Your task to perform on an android device: search for starred emails in the gmail app Image 0: 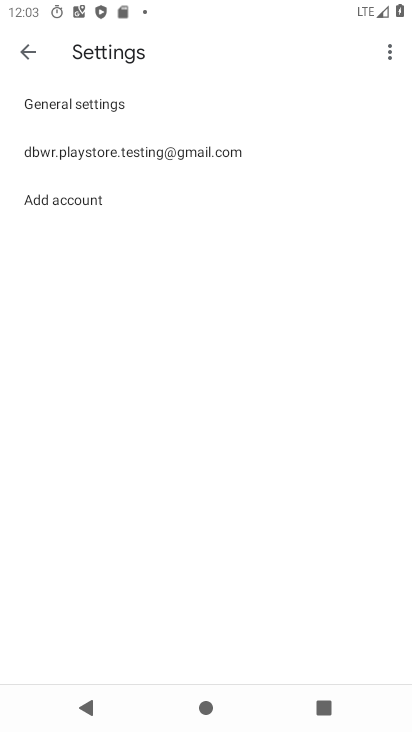
Step 0: press home button
Your task to perform on an android device: search for starred emails in the gmail app Image 1: 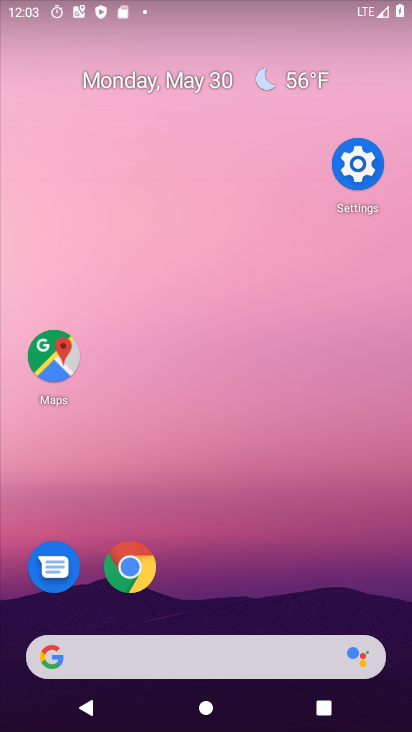
Step 1: drag from (306, 590) to (299, 124)
Your task to perform on an android device: search for starred emails in the gmail app Image 2: 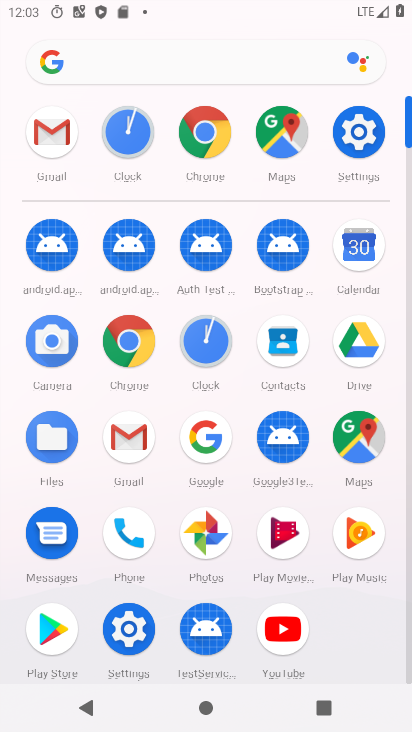
Step 2: click (127, 455)
Your task to perform on an android device: search for starred emails in the gmail app Image 3: 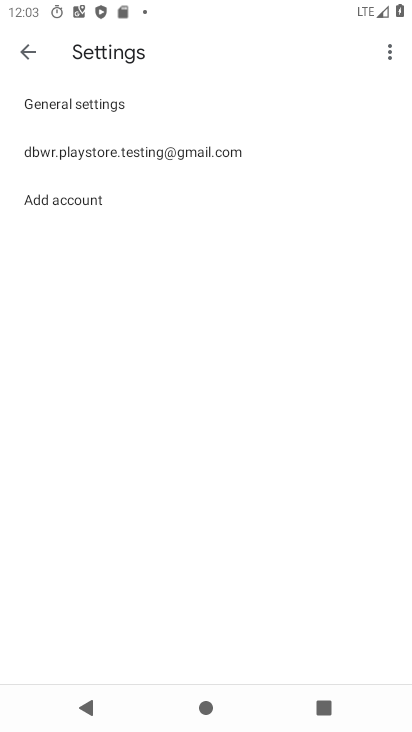
Step 3: click (183, 153)
Your task to perform on an android device: search for starred emails in the gmail app Image 4: 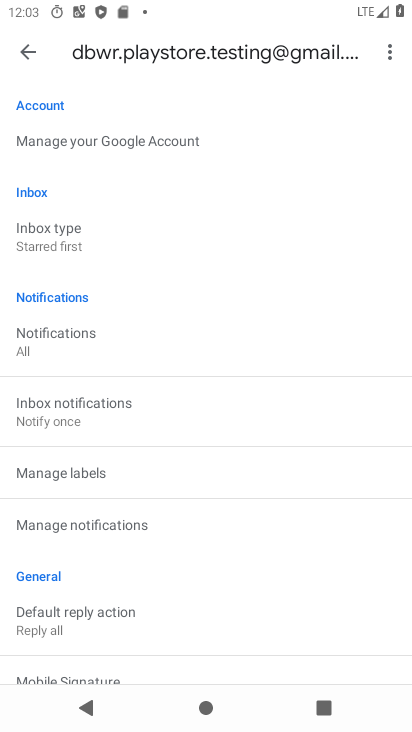
Step 4: click (6, 56)
Your task to perform on an android device: search for starred emails in the gmail app Image 5: 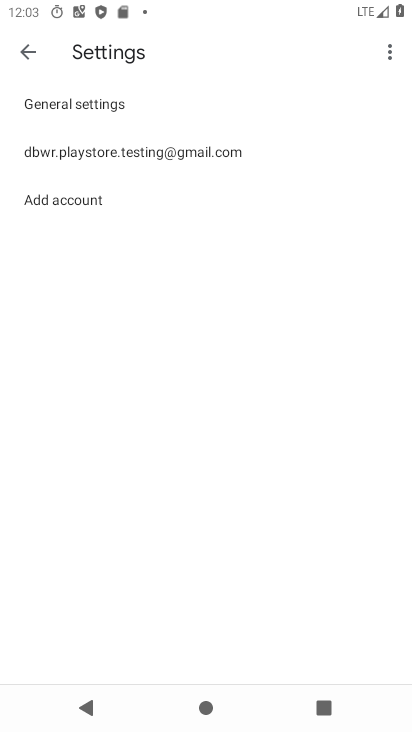
Step 5: click (6, 56)
Your task to perform on an android device: search for starred emails in the gmail app Image 6: 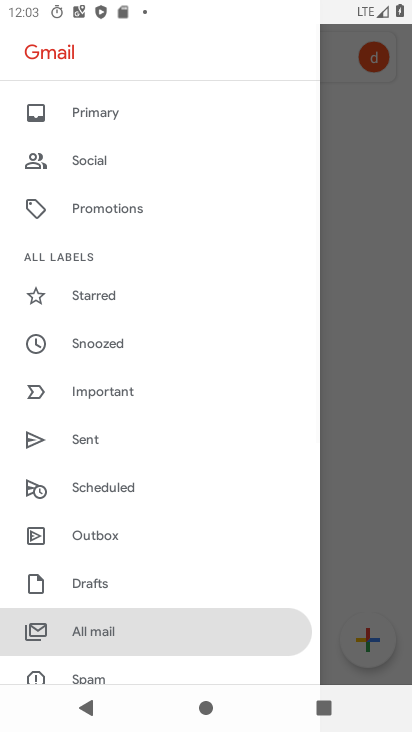
Step 6: click (131, 296)
Your task to perform on an android device: search for starred emails in the gmail app Image 7: 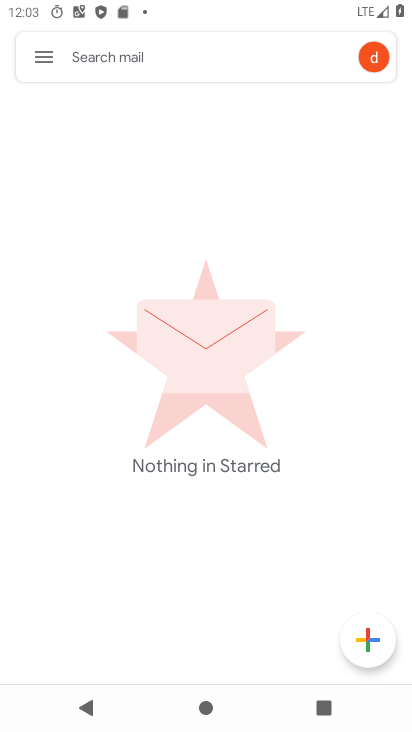
Step 7: task complete